Your task to perform on an android device: What is the recent news? Image 0: 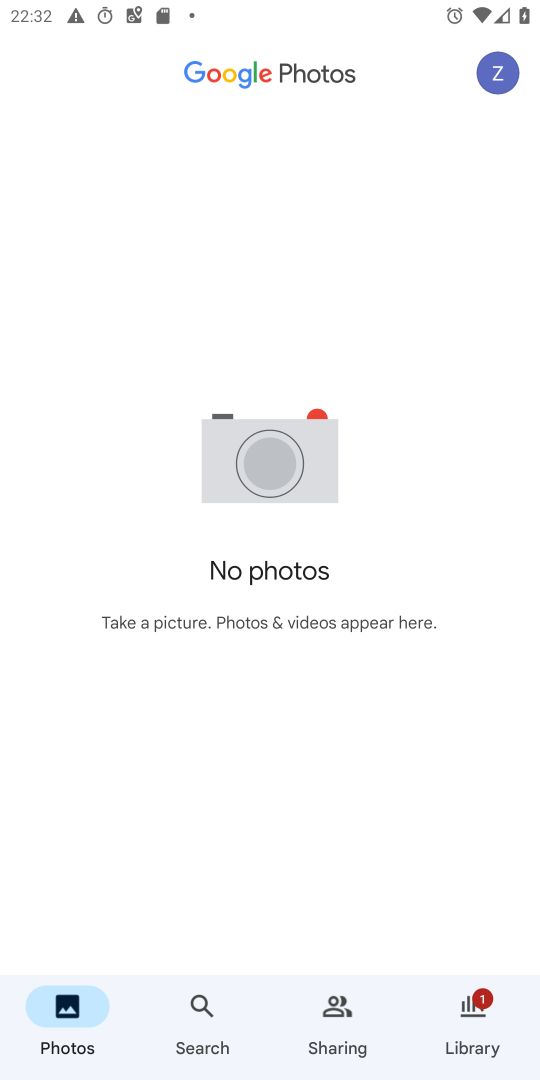
Step 0: press home button
Your task to perform on an android device: What is the recent news? Image 1: 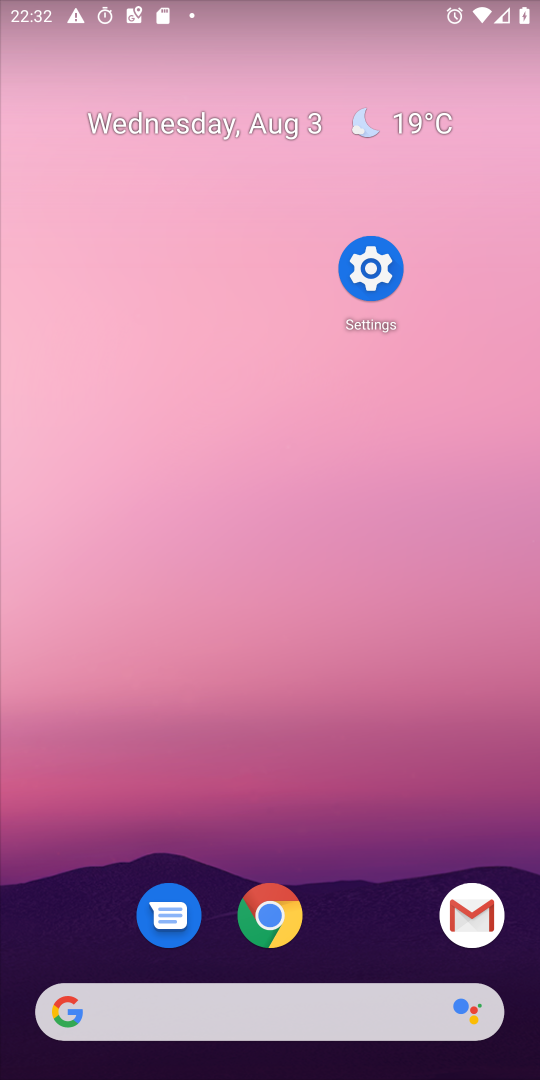
Step 1: click (292, 1007)
Your task to perform on an android device: What is the recent news? Image 2: 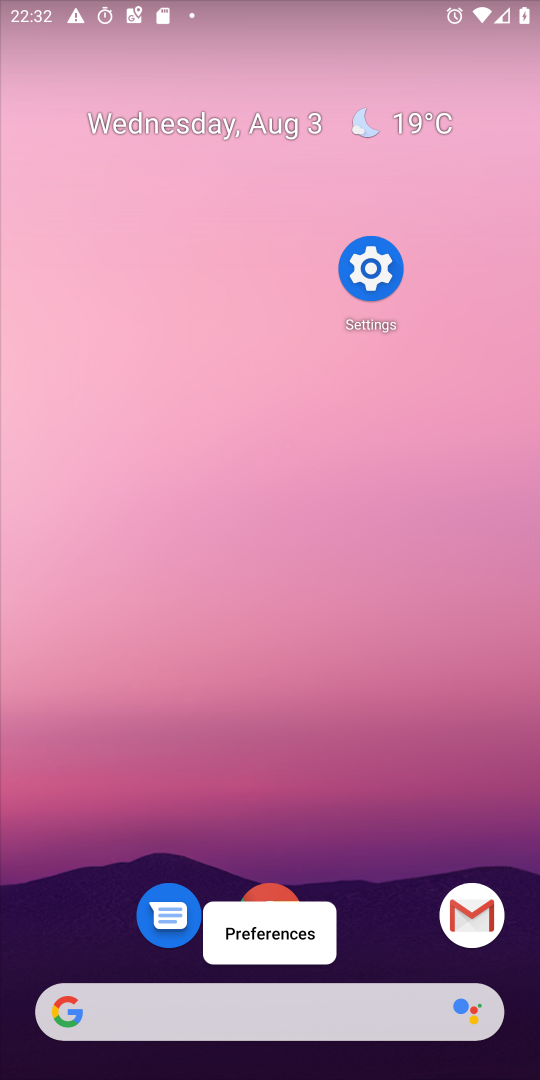
Step 2: click (168, 1022)
Your task to perform on an android device: What is the recent news? Image 3: 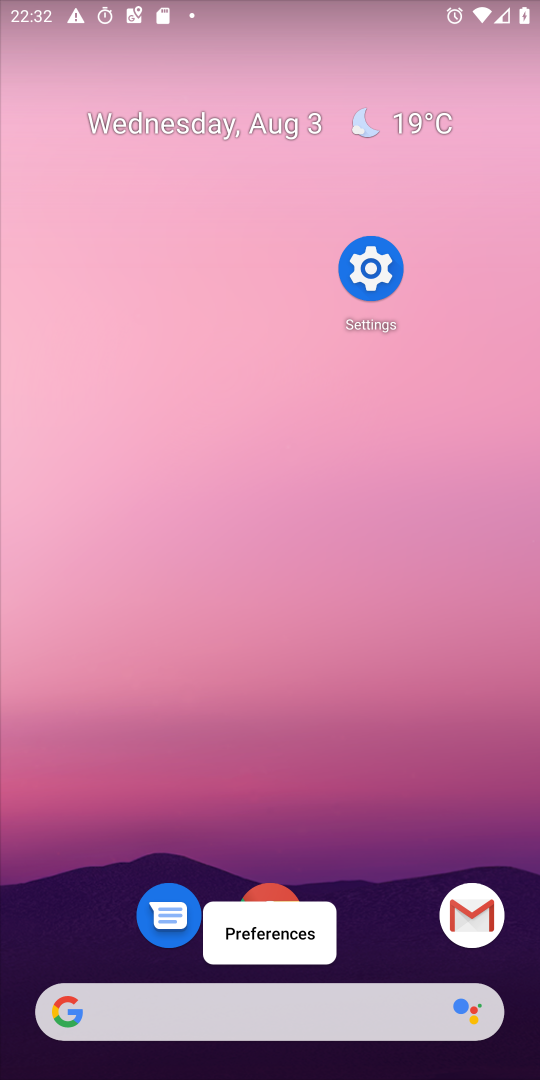
Step 3: click (347, 661)
Your task to perform on an android device: What is the recent news? Image 4: 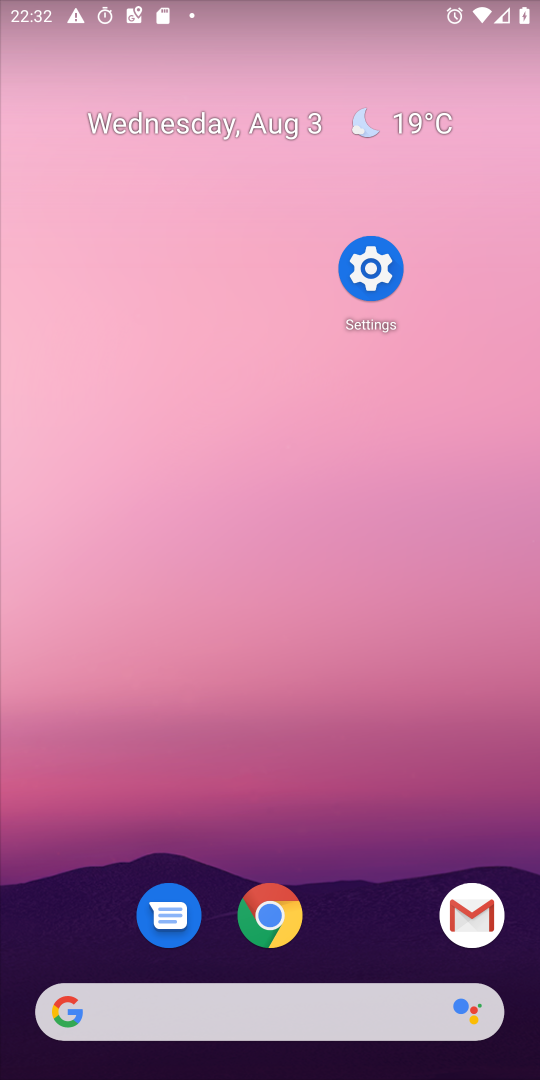
Step 4: drag from (290, 968) to (228, 417)
Your task to perform on an android device: What is the recent news? Image 5: 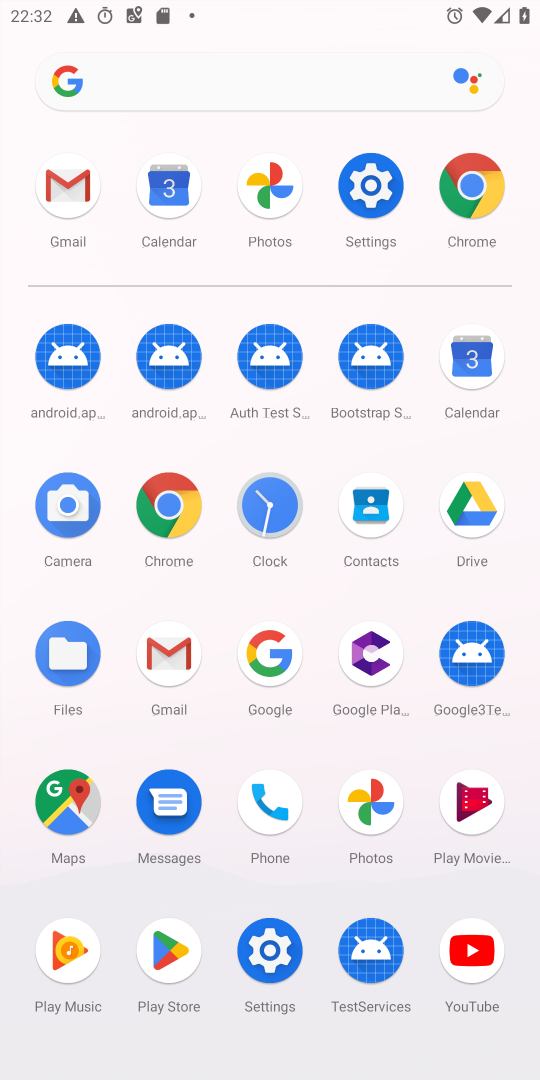
Step 5: click (169, 93)
Your task to perform on an android device: What is the recent news? Image 6: 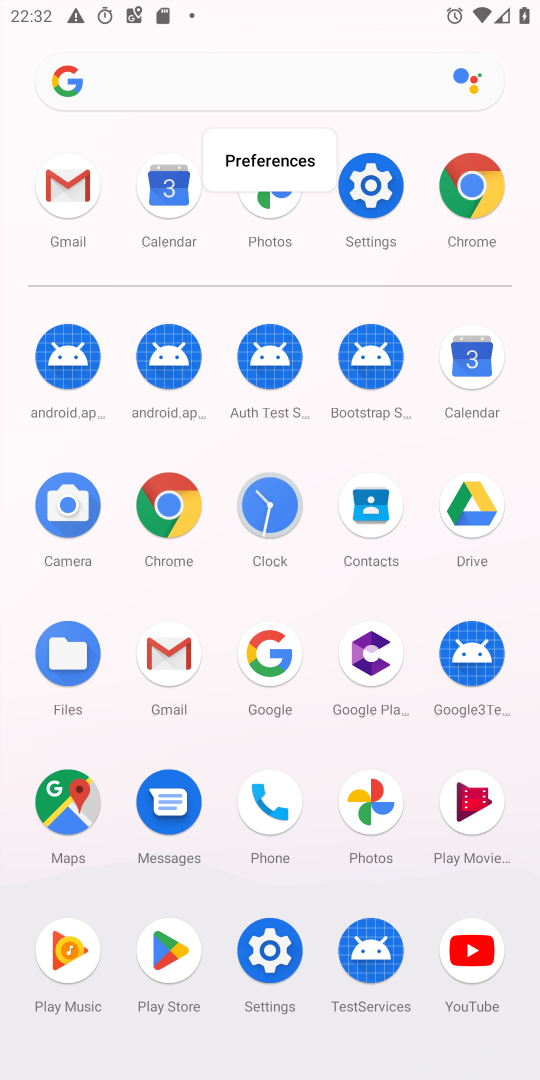
Step 6: click (107, 76)
Your task to perform on an android device: What is the recent news? Image 7: 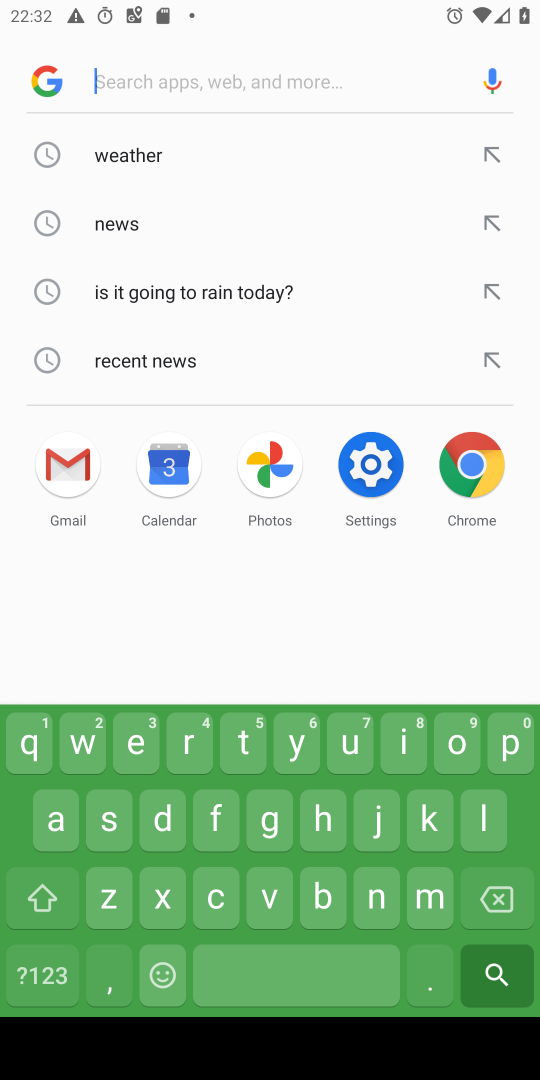
Step 7: click (216, 369)
Your task to perform on an android device: What is the recent news? Image 8: 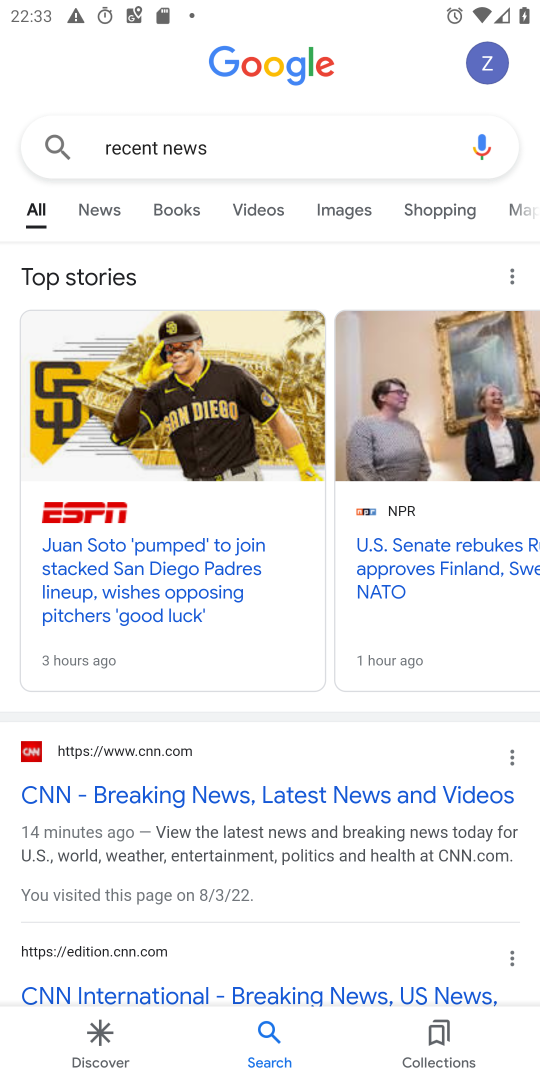
Step 8: task complete